Your task to perform on an android device: Open wifi settings Image 0: 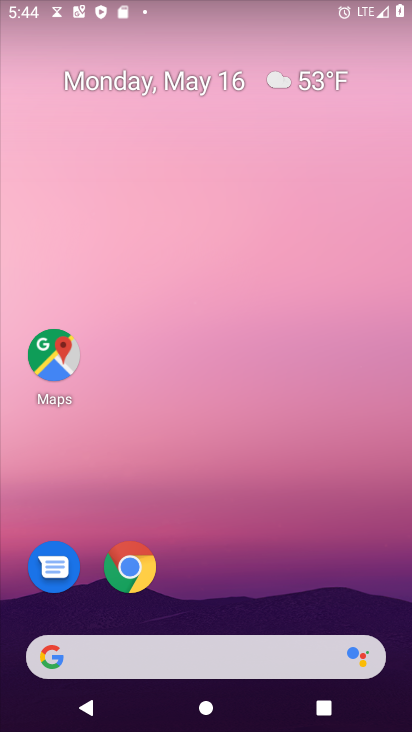
Step 0: drag from (296, 619) to (341, 1)
Your task to perform on an android device: Open wifi settings Image 1: 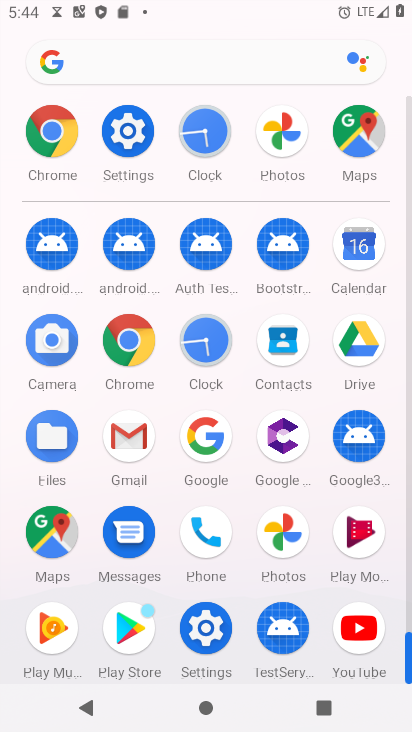
Step 1: click (138, 144)
Your task to perform on an android device: Open wifi settings Image 2: 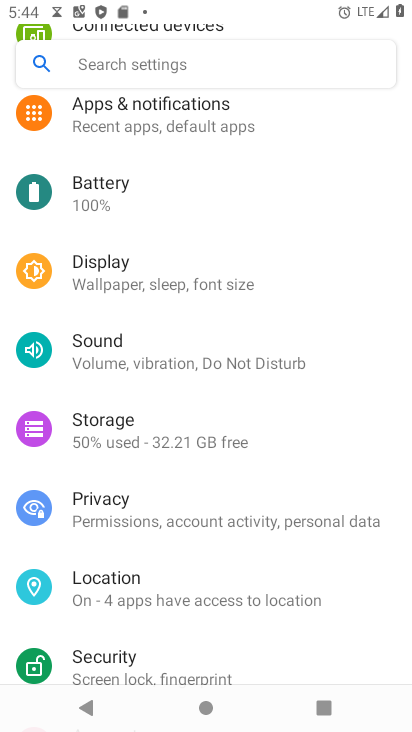
Step 2: drag from (166, 136) to (161, 688)
Your task to perform on an android device: Open wifi settings Image 3: 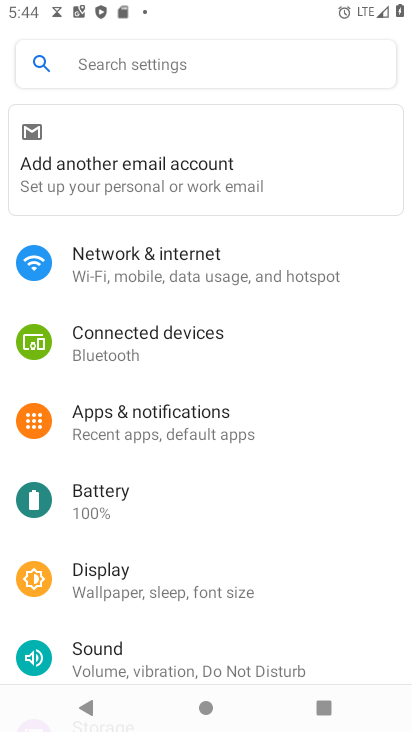
Step 3: click (128, 264)
Your task to perform on an android device: Open wifi settings Image 4: 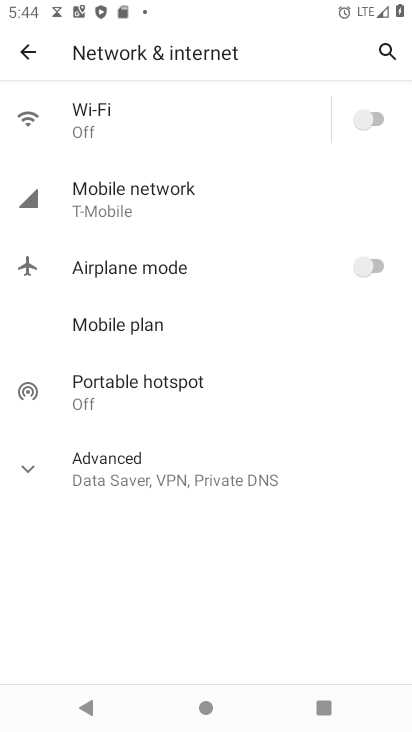
Step 4: click (142, 129)
Your task to perform on an android device: Open wifi settings Image 5: 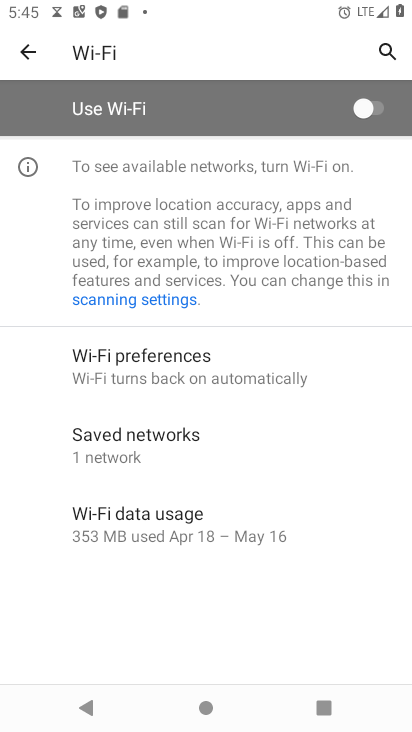
Step 5: task complete